Your task to perform on an android device: open app "Duolingo: language lessons" (install if not already installed) and go to login screen Image 0: 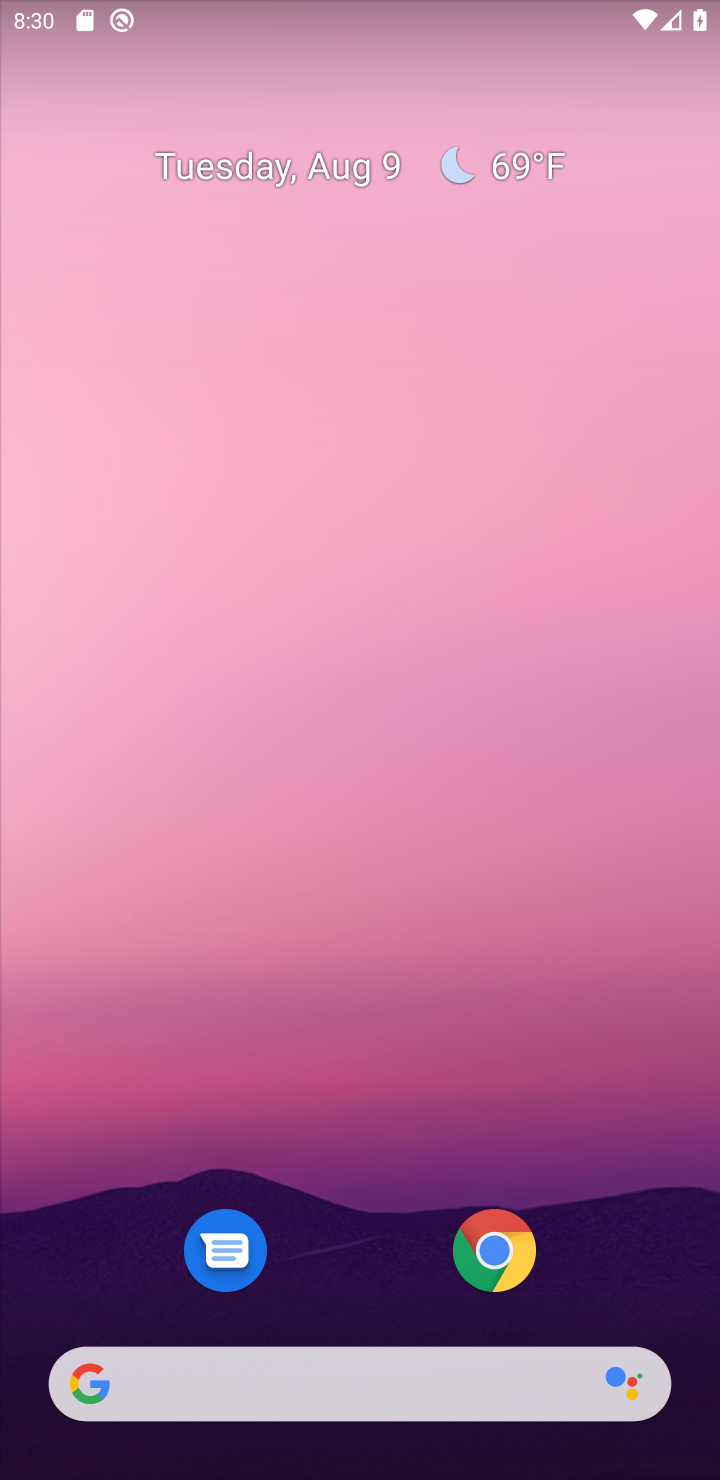
Step 0: drag from (670, 1392) to (500, 493)
Your task to perform on an android device: open app "Duolingo: language lessons" (install if not already installed) and go to login screen Image 1: 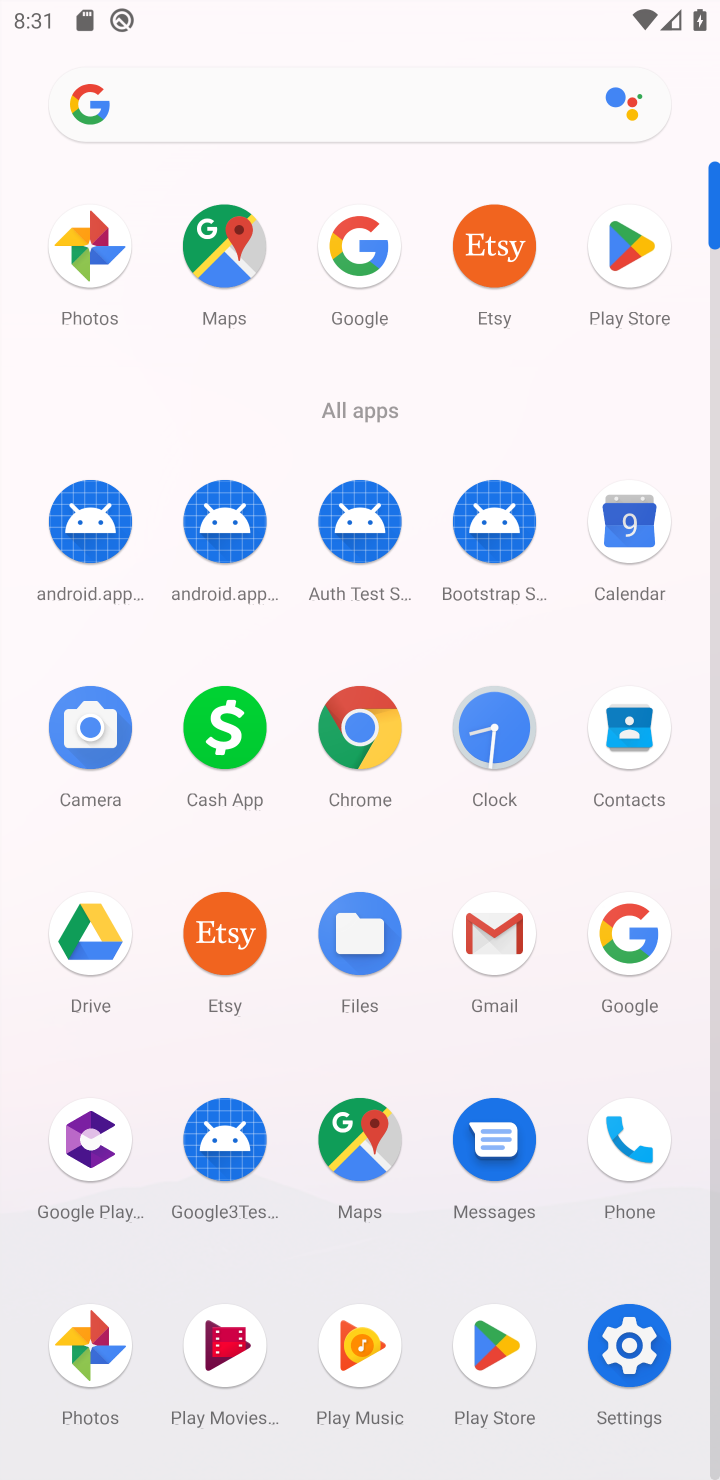
Step 1: click (505, 1348)
Your task to perform on an android device: open app "Duolingo: language lessons" (install if not already installed) and go to login screen Image 2: 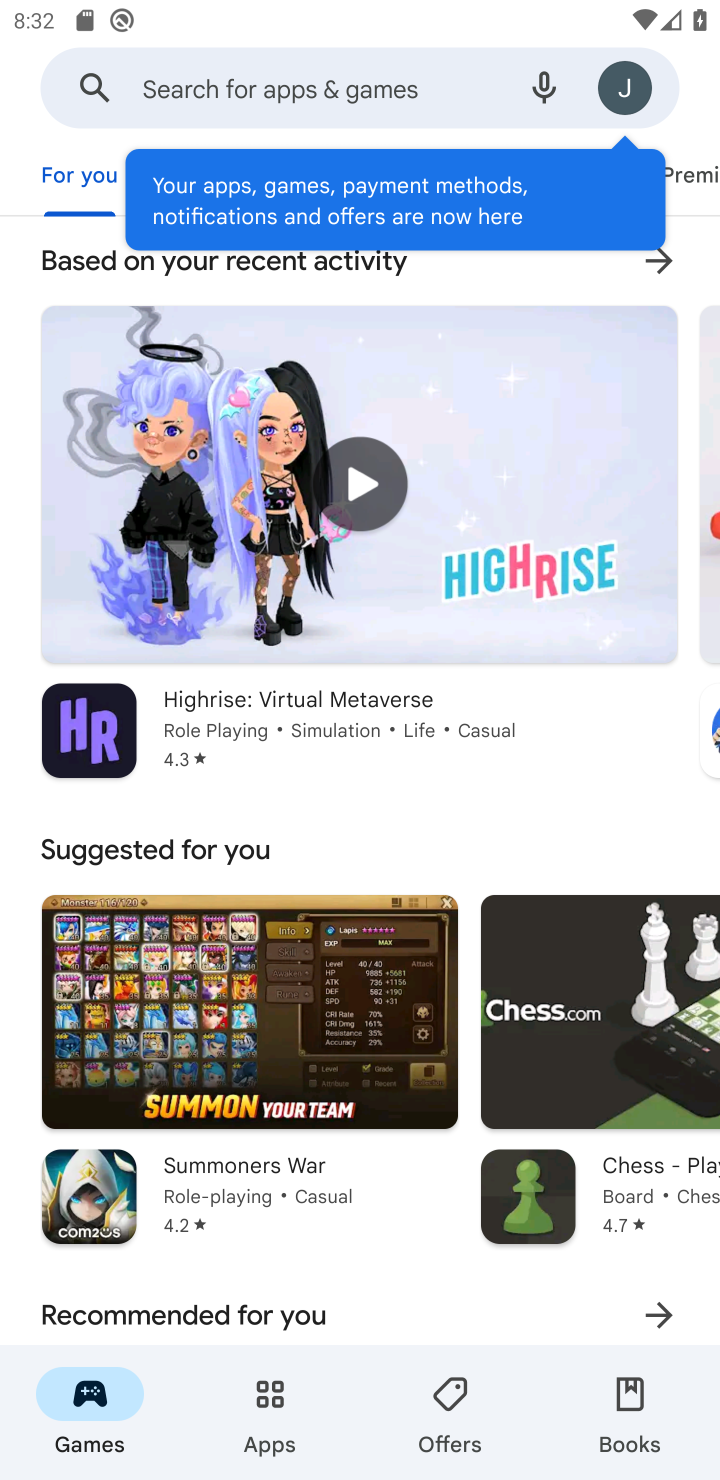
Step 2: click (292, 79)
Your task to perform on an android device: open app "Duolingo: language lessons" (install if not already installed) and go to login screen Image 3: 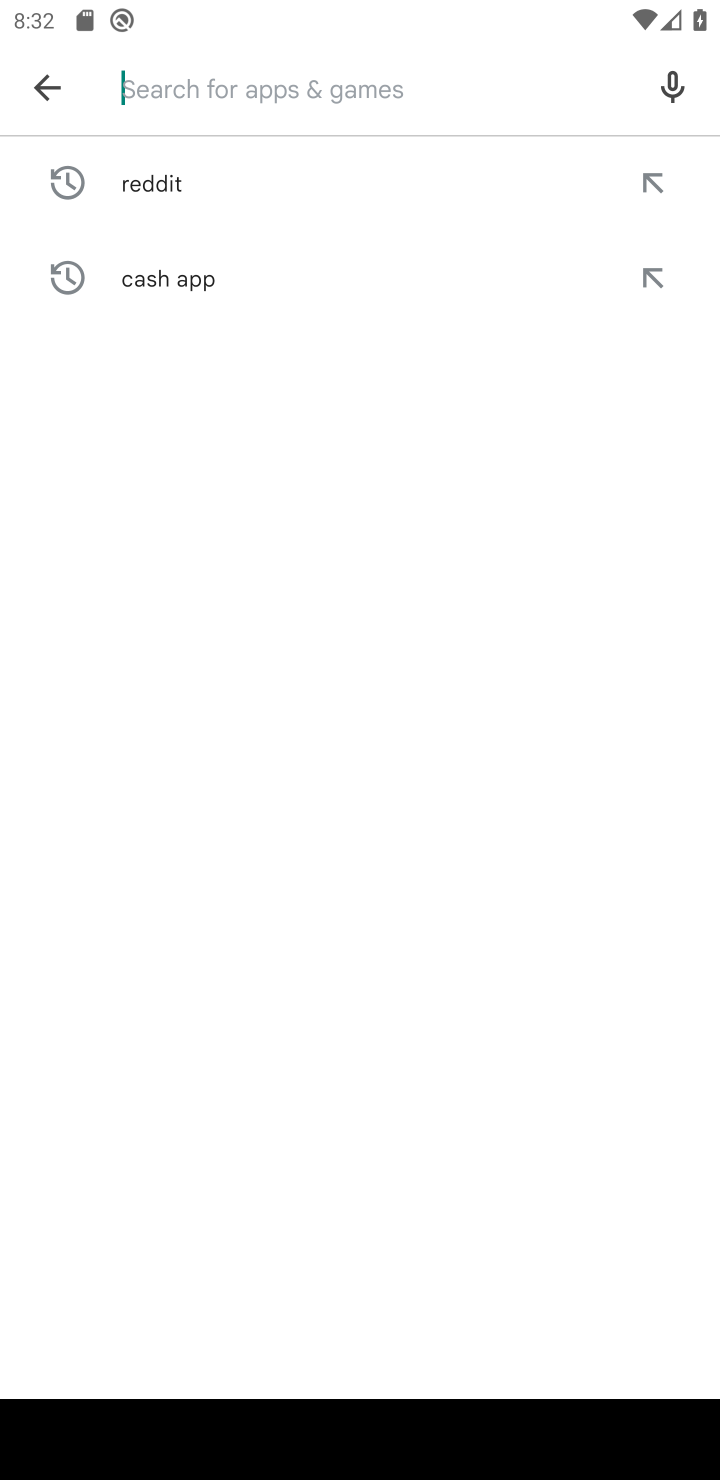
Step 3: type "Duolingo: language lessons"
Your task to perform on an android device: open app "Duolingo: language lessons" (install if not already installed) and go to login screen Image 4: 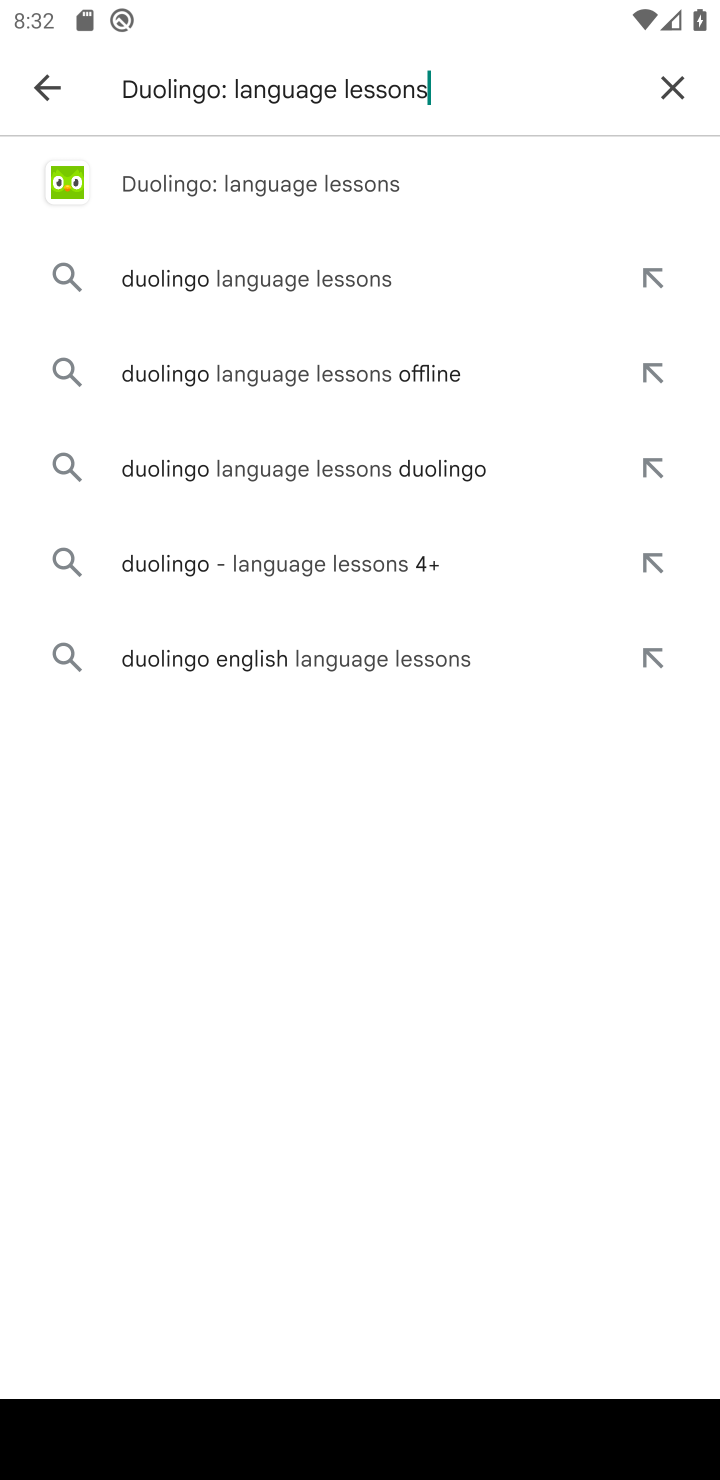
Step 4: click (148, 176)
Your task to perform on an android device: open app "Duolingo: language lessons" (install if not already installed) and go to login screen Image 5: 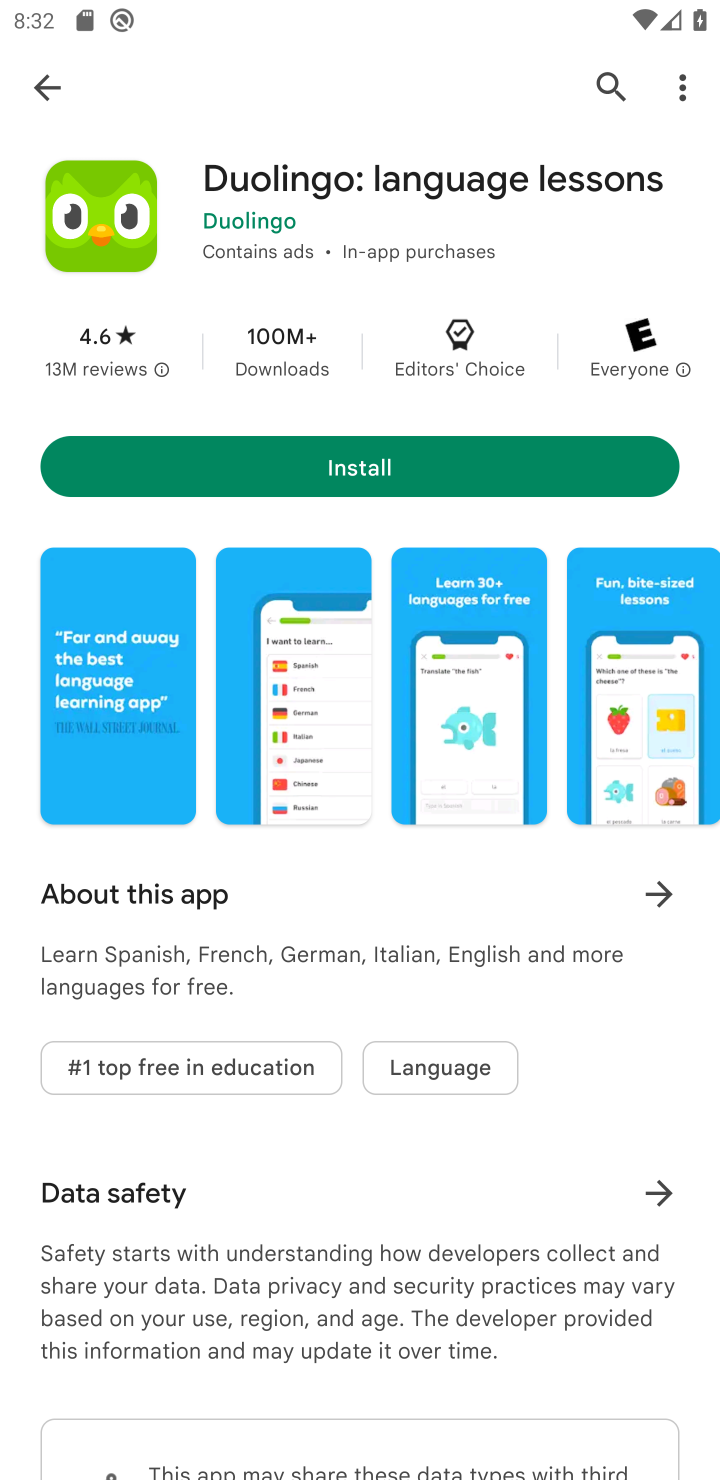
Step 5: click (391, 470)
Your task to perform on an android device: open app "Duolingo: language lessons" (install if not already installed) and go to login screen Image 6: 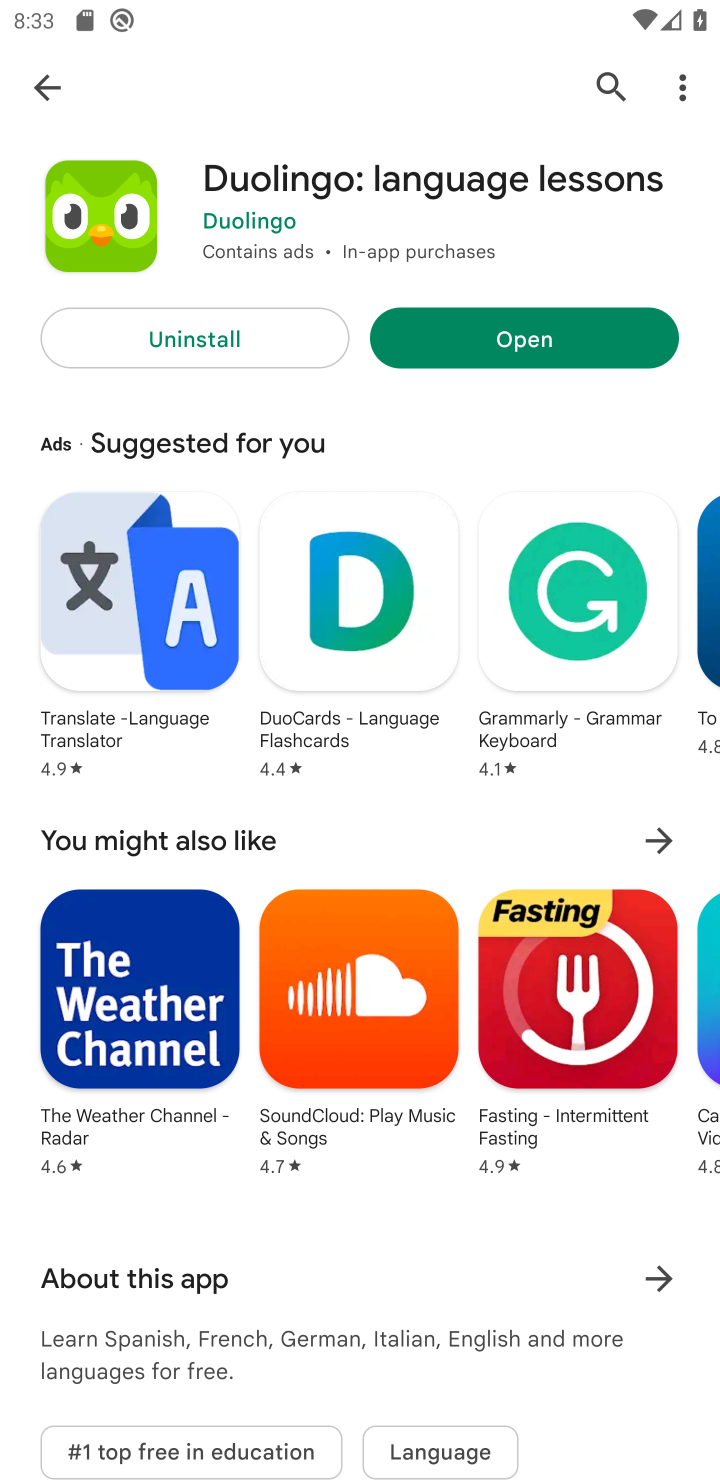
Step 6: click (522, 334)
Your task to perform on an android device: open app "Duolingo: language lessons" (install if not already installed) and go to login screen Image 7: 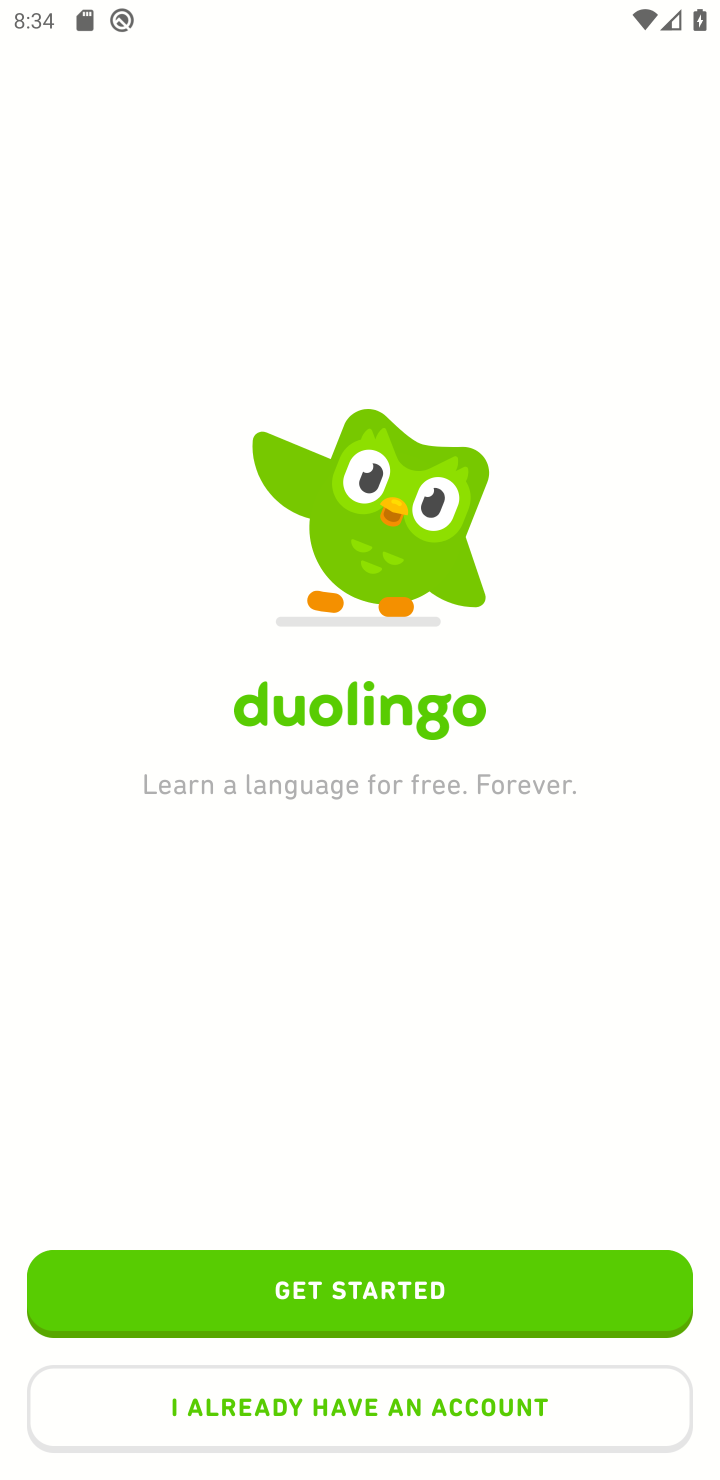
Step 7: task complete